Your task to perform on an android device: toggle data saver in the chrome app Image 0: 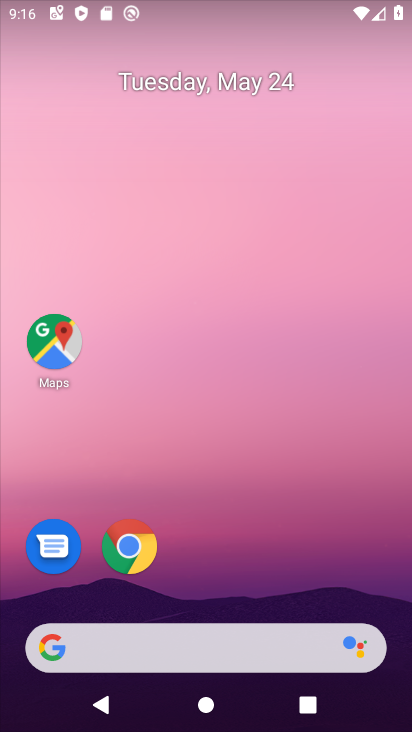
Step 0: click (135, 551)
Your task to perform on an android device: toggle data saver in the chrome app Image 1: 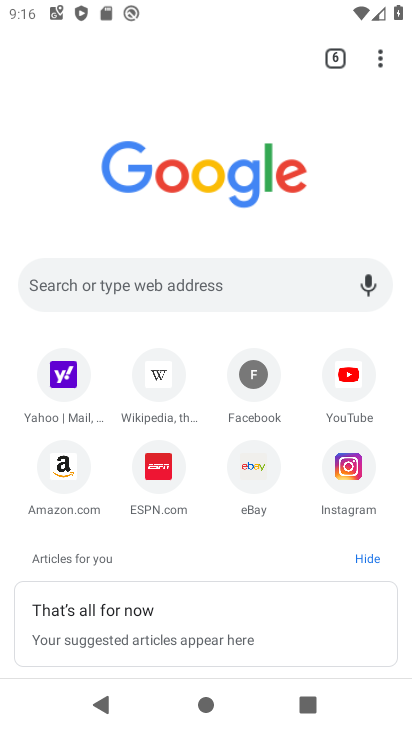
Step 1: click (380, 65)
Your task to perform on an android device: toggle data saver in the chrome app Image 2: 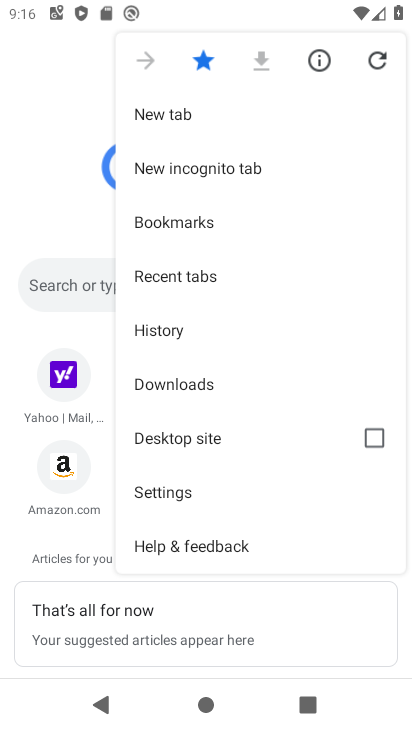
Step 2: click (202, 487)
Your task to perform on an android device: toggle data saver in the chrome app Image 3: 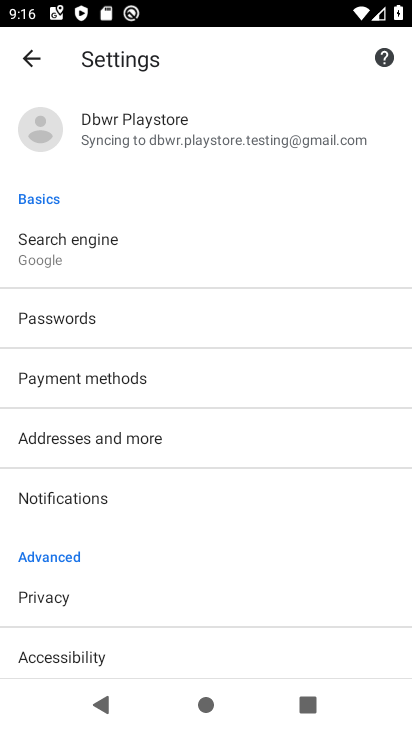
Step 3: drag from (227, 474) to (262, 224)
Your task to perform on an android device: toggle data saver in the chrome app Image 4: 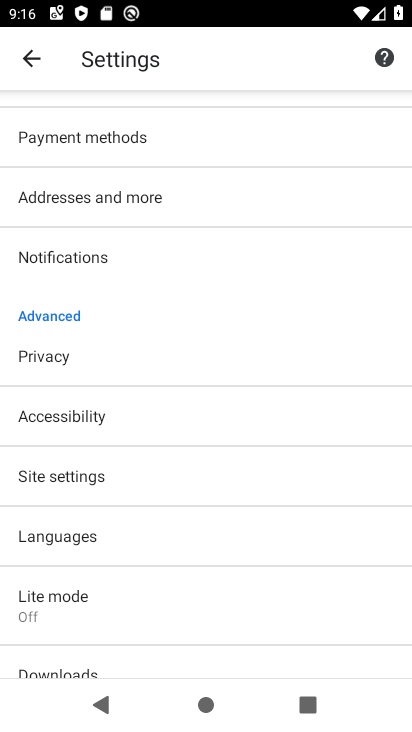
Step 4: click (126, 593)
Your task to perform on an android device: toggle data saver in the chrome app Image 5: 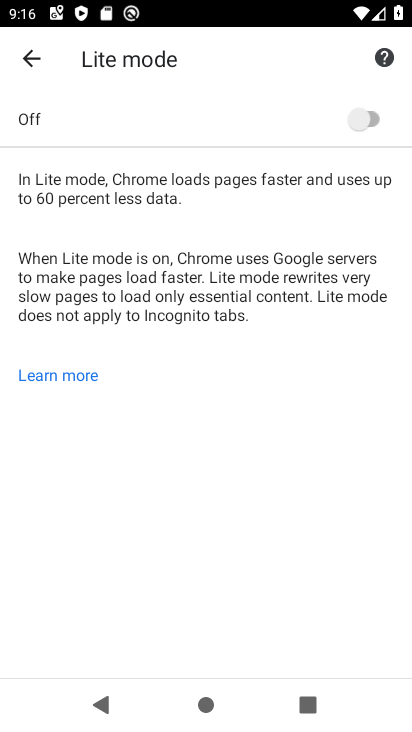
Step 5: click (357, 111)
Your task to perform on an android device: toggle data saver in the chrome app Image 6: 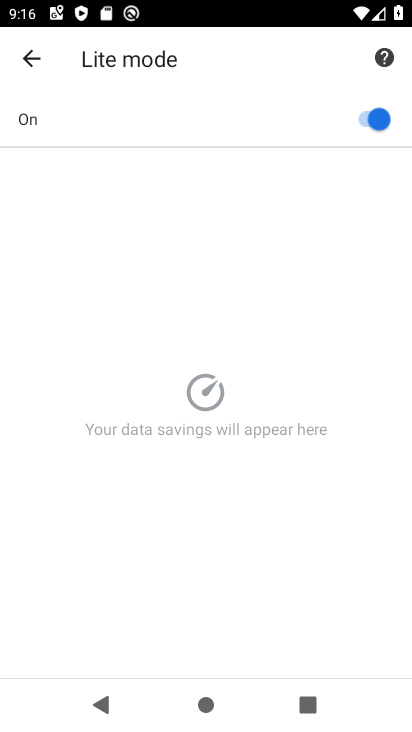
Step 6: task complete